Your task to perform on an android device: find photos in the google photos app Image 0: 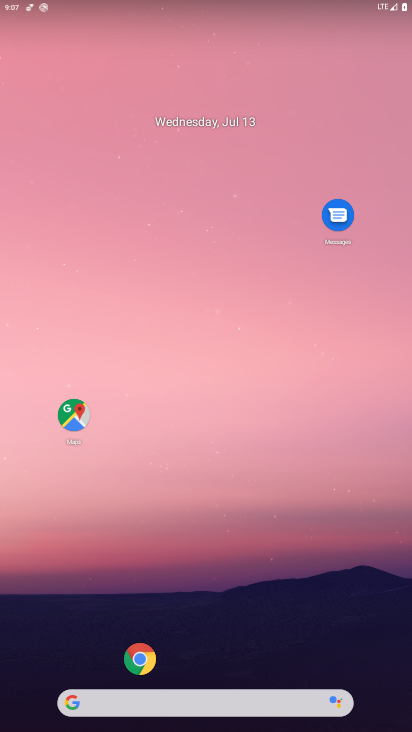
Step 0: drag from (34, 653) to (162, 261)
Your task to perform on an android device: find photos in the google photos app Image 1: 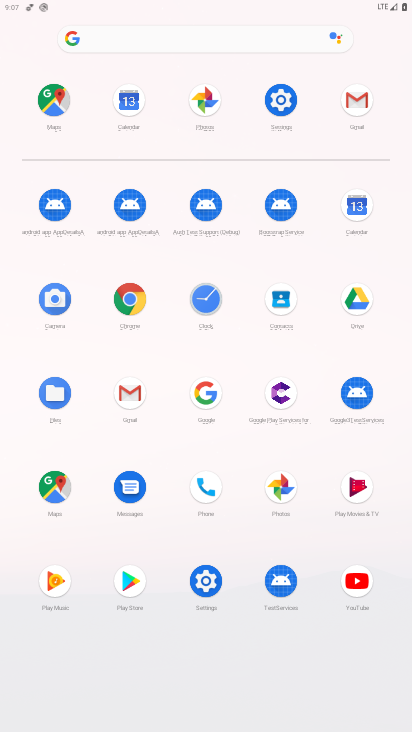
Step 1: click (267, 490)
Your task to perform on an android device: find photos in the google photos app Image 2: 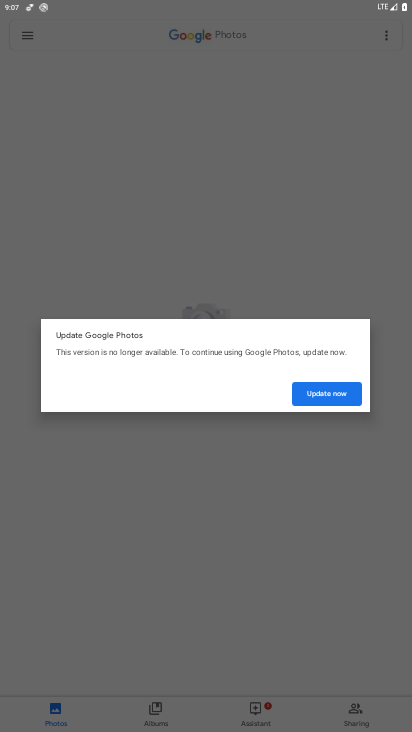
Step 2: click (321, 398)
Your task to perform on an android device: find photos in the google photos app Image 3: 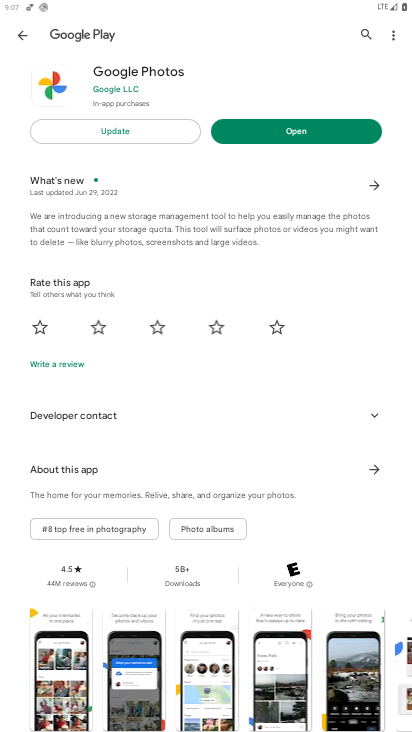
Step 3: click (288, 128)
Your task to perform on an android device: find photos in the google photos app Image 4: 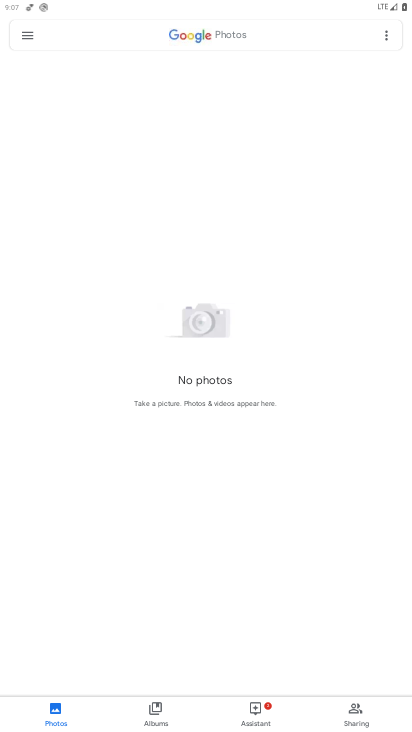
Step 4: task complete